Your task to perform on an android device: turn smart compose on in the gmail app Image 0: 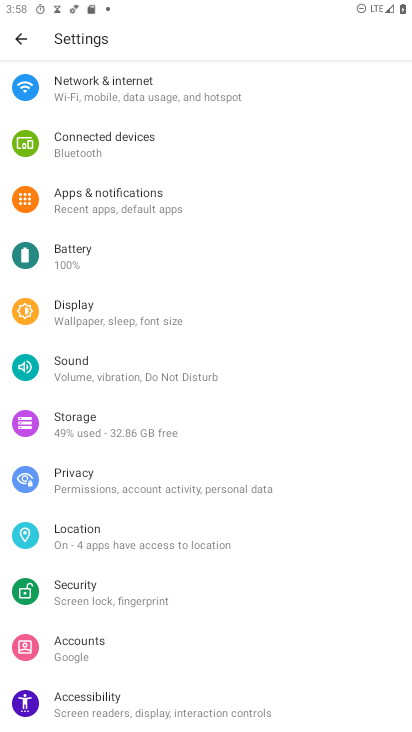
Step 0: press home button
Your task to perform on an android device: turn smart compose on in the gmail app Image 1: 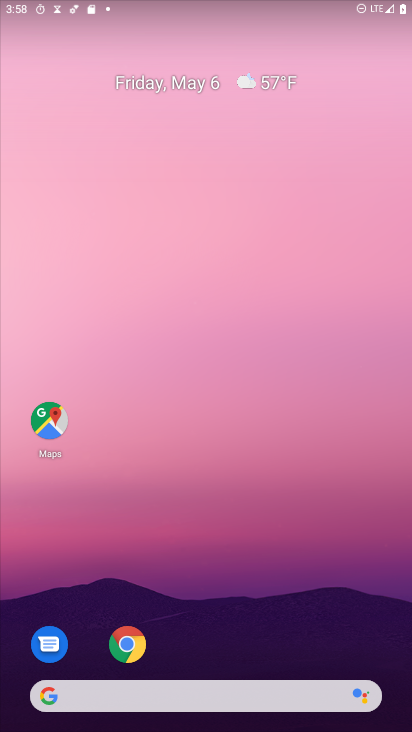
Step 1: drag from (205, 728) to (198, 278)
Your task to perform on an android device: turn smart compose on in the gmail app Image 2: 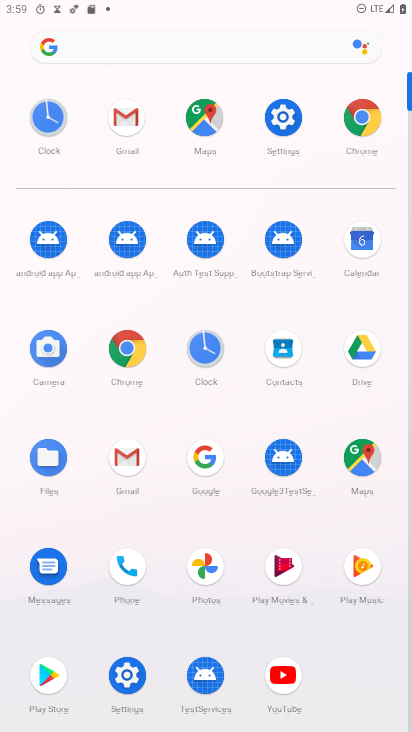
Step 2: click (127, 462)
Your task to perform on an android device: turn smart compose on in the gmail app Image 3: 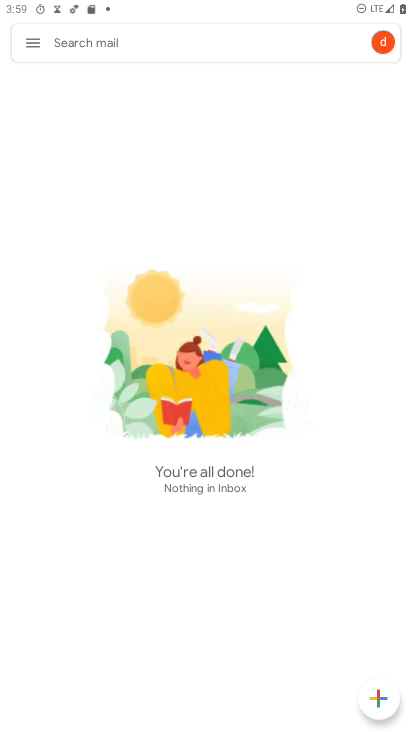
Step 3: click (31, 38)
Your task to perform on an android device: turn smart compose on in the gmail app Image 4: 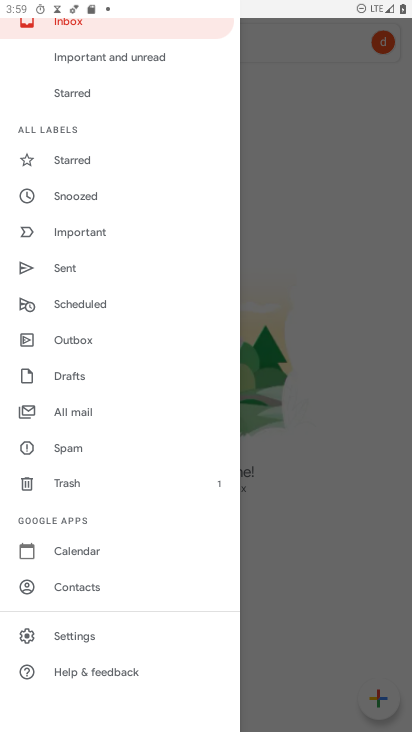
Step 4: click (64, 640)
Your task to perform on an android device: turn smart compose on in the gmail app Image 5: 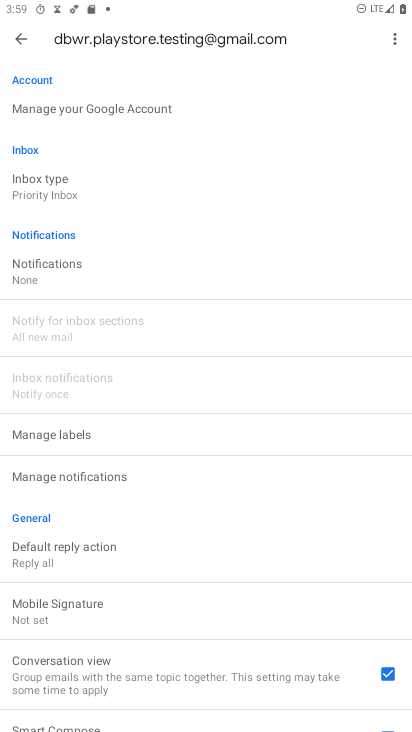
Step 5: task complete